Your task to perform on an android device: delete browsing data in the chrome app Image 0: 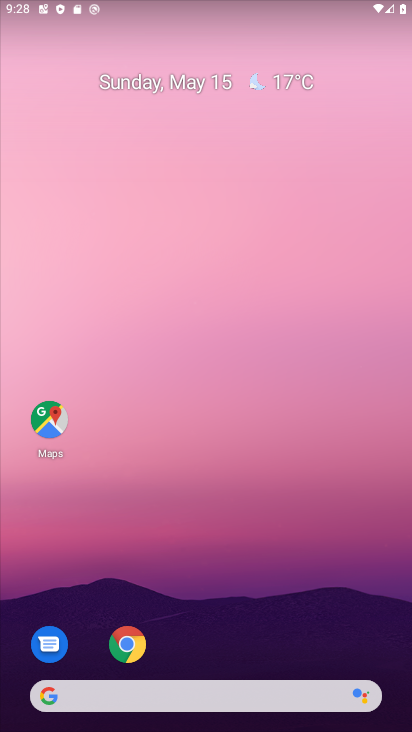
Step 0: drag from (232, 703) to (321, 219)
Your task to perform on an android device: delete browsing data in the chrome app Image 1: 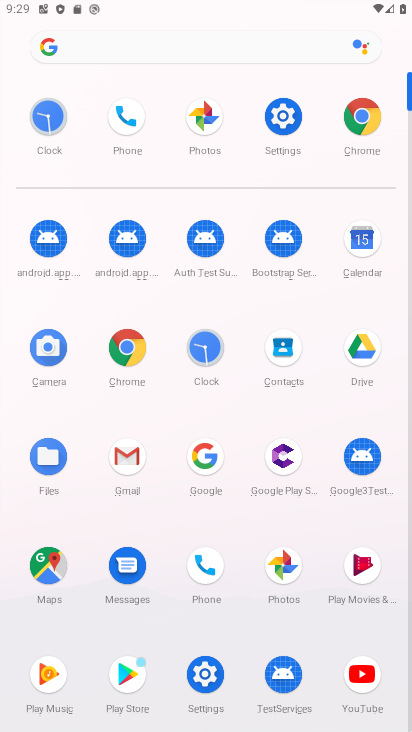
Step 1: click (131, 367)
Your task to perform on an android device: delete browsing data in the chrome app Image 2: 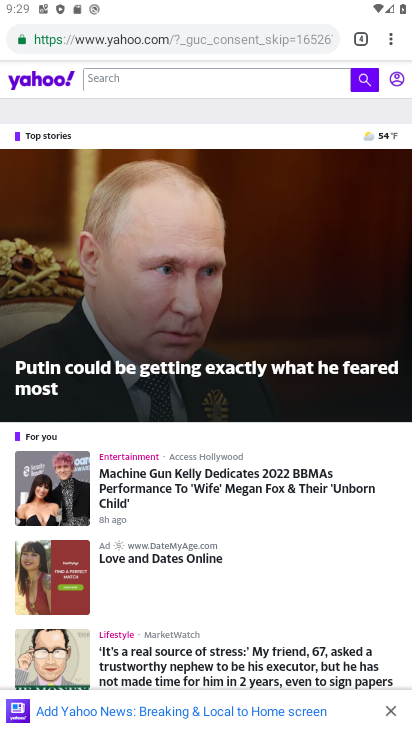
Step 2: click (147, 40)
Your task to perform on an android device: delete browsing data in the chrome app Image 3: 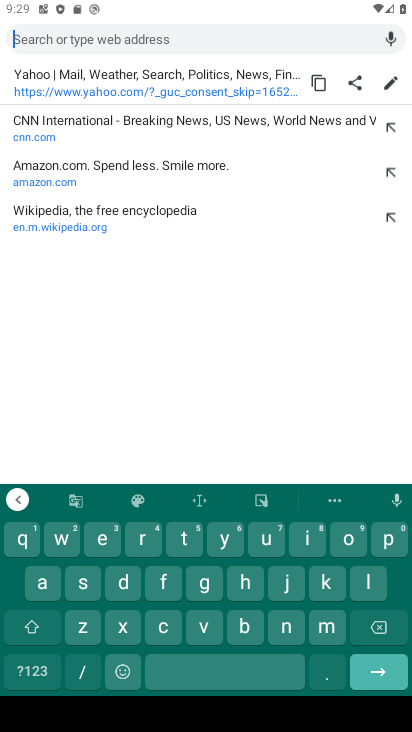
Step 3: task complete